Your task to perform on an android device: find which apps use the phone's location Image 0: 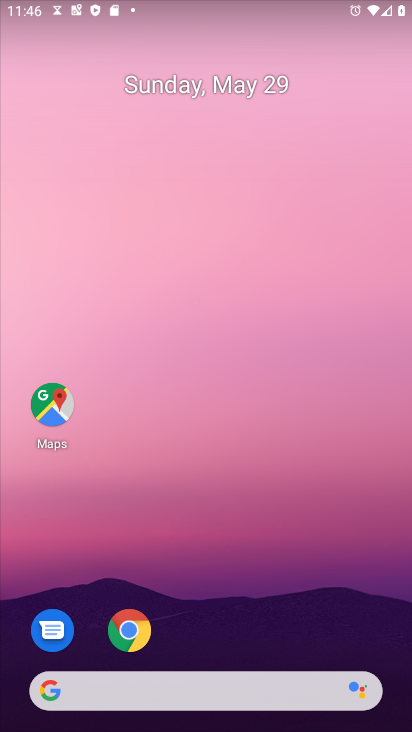
Step 0: drag from (229, 653) to (268, 159)
Your task to perform on an android device: find which apps use the phone's location Image 1: 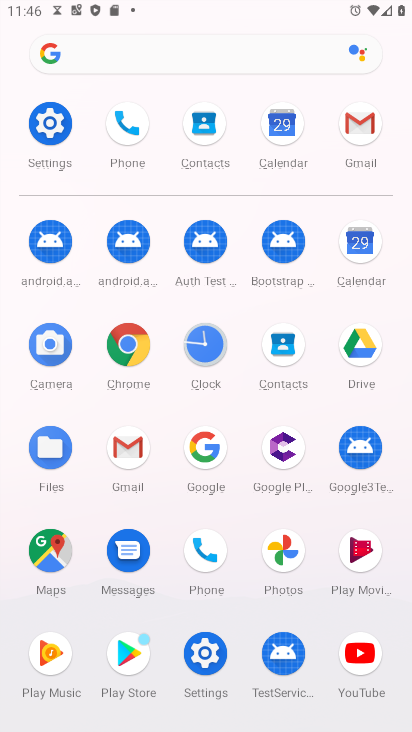
Step 1: click (56, 112)
Your task to perform on an android device: find which apps use the phone's location Image 2: 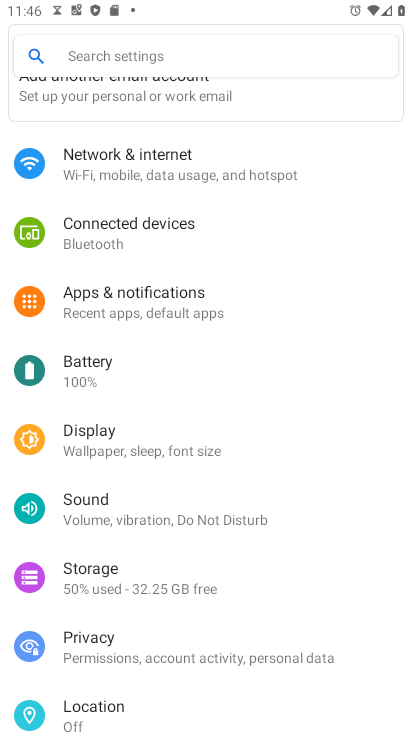
Step 2: click (160, 697)
Your task to perform on an android device: find which apps use the phone's location Image 3: 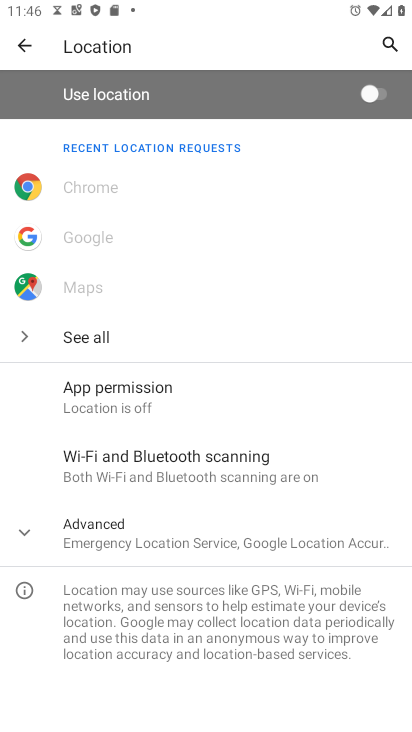
Step 3: click (124, 514)
Your task to perform on an android device: find which apps use the phone's location Image 4: 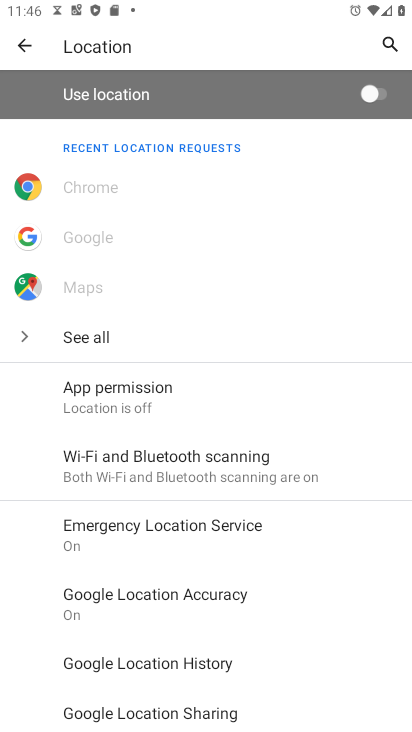
Step 4: task complete